Your task to perform on an android device: Toggle the flashlight Image 0: 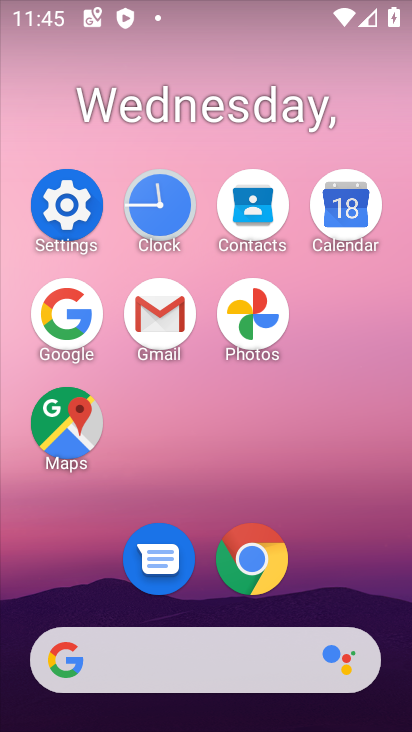
Step 0: drag from (273, 2) to (220, 405)
Your task to perform on an android device: Toggle the flashlight Image 1: 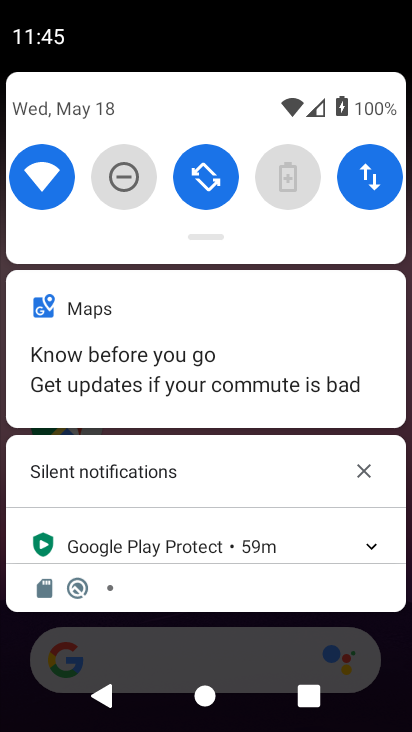
Step 1: task complete